Your task to perform on an android device: Open calendar and show me the fourth week of next month Image 0: 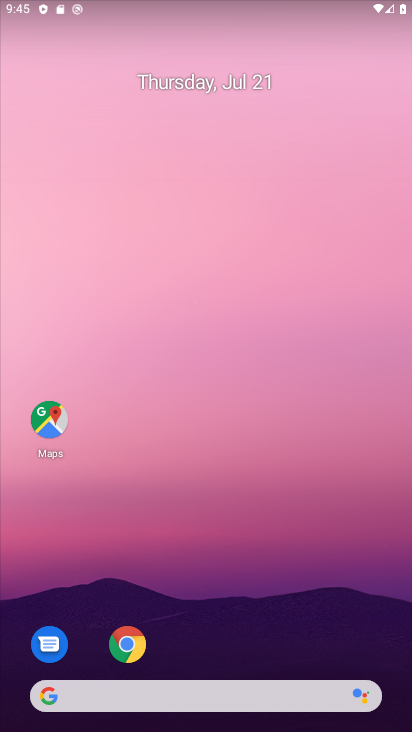
Step 0: drag from (250, 623) to (75, 4)
Your task to perform on an android device: Open calendar and show me the fourth week of next month Image 1: 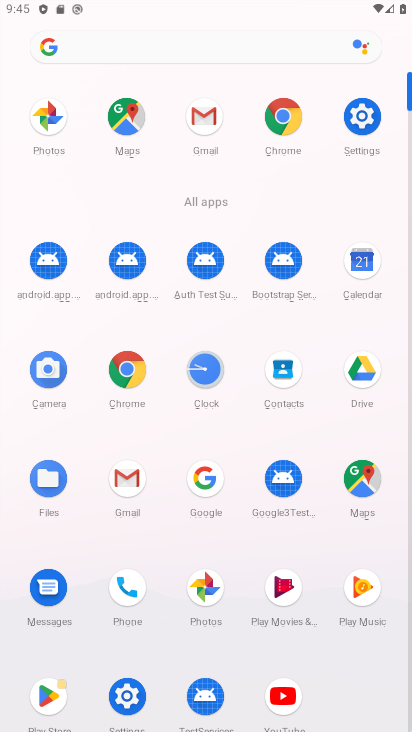
Step 1: click (364, 264)
Your task to perform on an android device: Open calendar and show me the fourth week of next month Image 2: 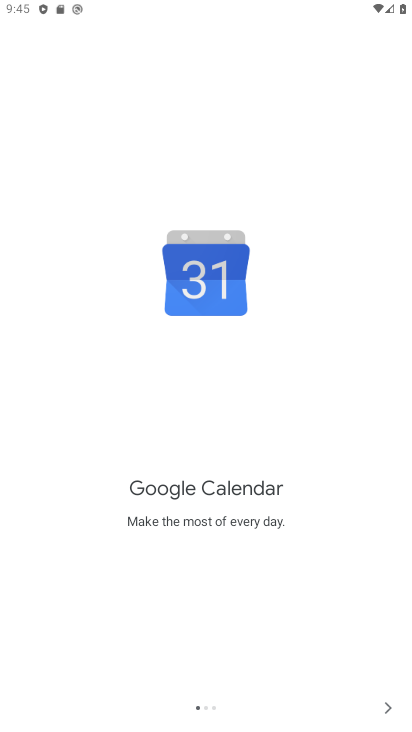
Step 2: click (384, 706)
Your task to perform on an android device: Open calendar and show me the fourth week of next month Image 3: 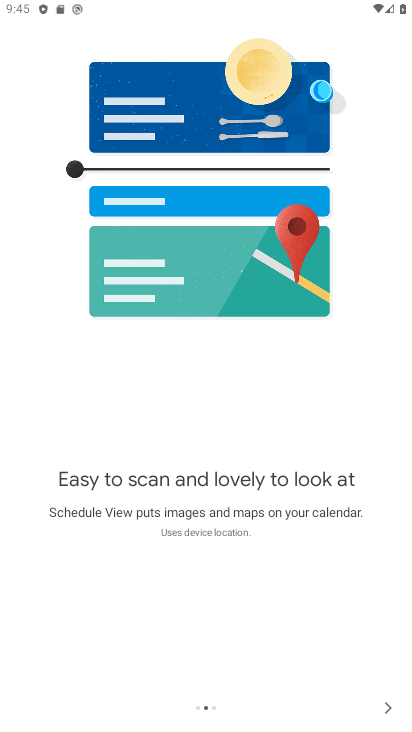
Step 3: click (378, 699)
Your task to perform on an android device: Open calendar and show me the fourth week of next month Image 4: 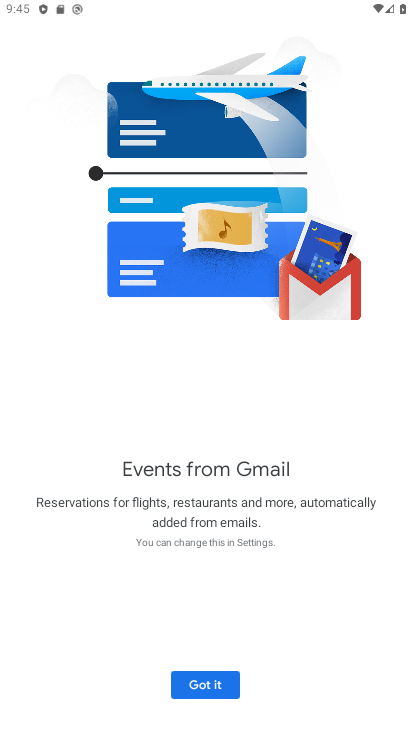
Step 4: click (212, 679)
Your task to perform on an android device: Open calendar and show me the fourth week of next month Image 5: 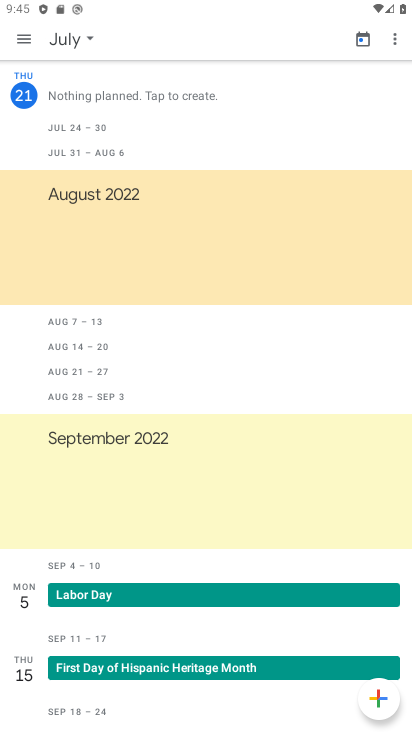
Step 5: click (14, 37)
Your task to perform on an android device: Open calendar and show me the fourth week of next month Image 6: 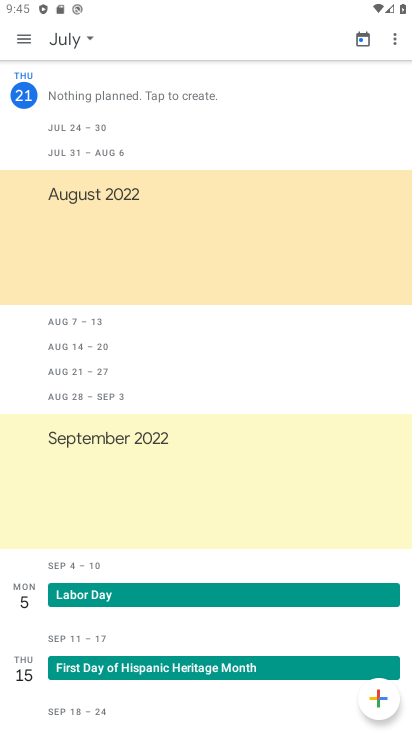
Step 6: click (22, 40)
Your task to perform on an android device: Open calendar and show me the fourth week of next month Image 7: 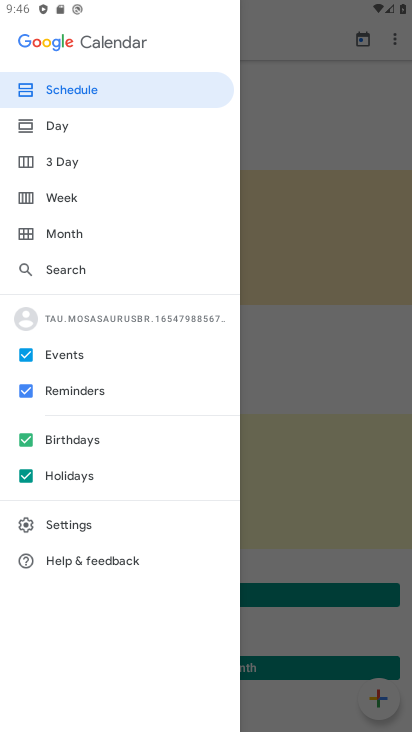
Step 7: click (64, 194)
Your task to perform on an android device: Open calendar and show me the fourth week of next month Image 8: 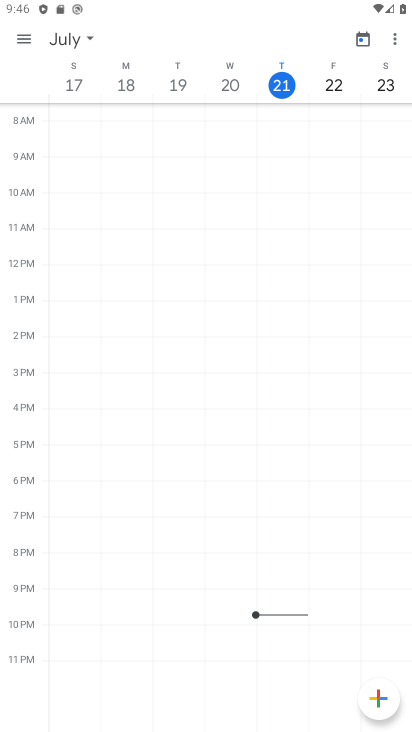
Step 8: task complete